Your task to perform on an android device: Search for pizza restaurants on Maps Image 0: 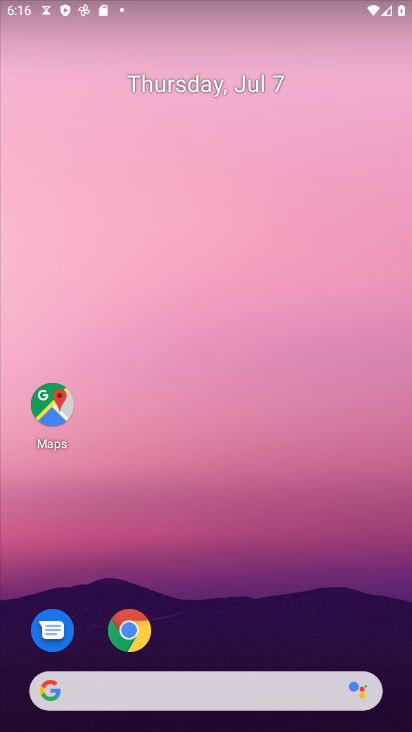
Step 0: drag from (178, 628) to (54, 429)
Your task to perform on an android device: Search for pizza restaurants on Maps Image 1: 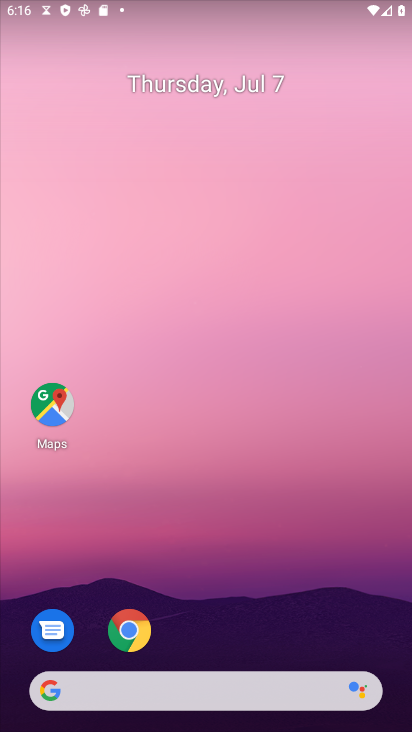
Step 1: click (54, 429)
Your task to perform on an android device: Search for pizza restaurants on Maps Image 2: 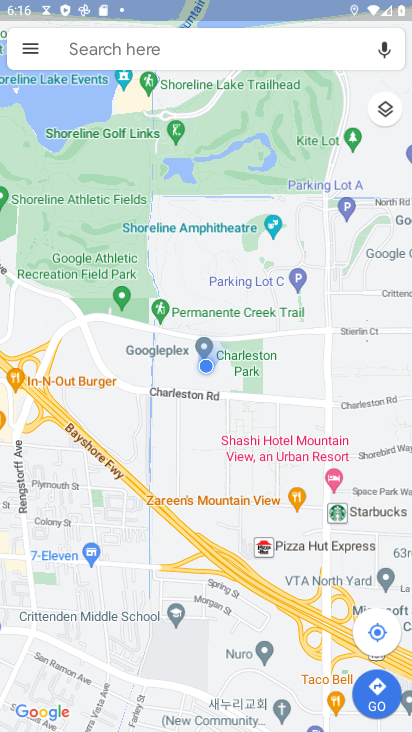
Step 2: click (221, 53)
Your task to perform on an android device: Search for pizza restaurants on Maps Image 3: 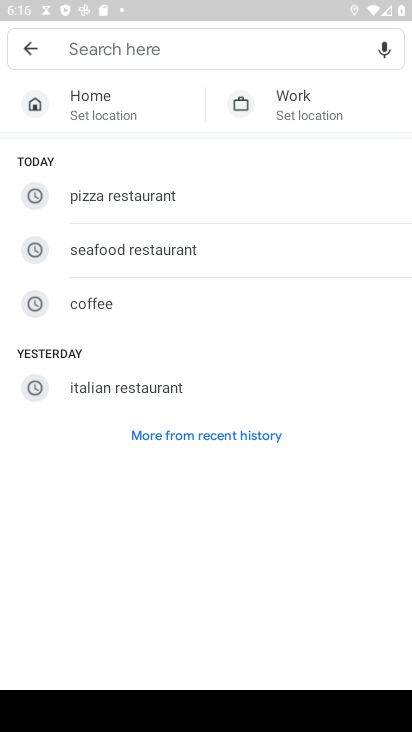
Step 3: type "pizza restaurants"
Your task to perform on an android device: Search for pizza restaurants on Maps Image 4: 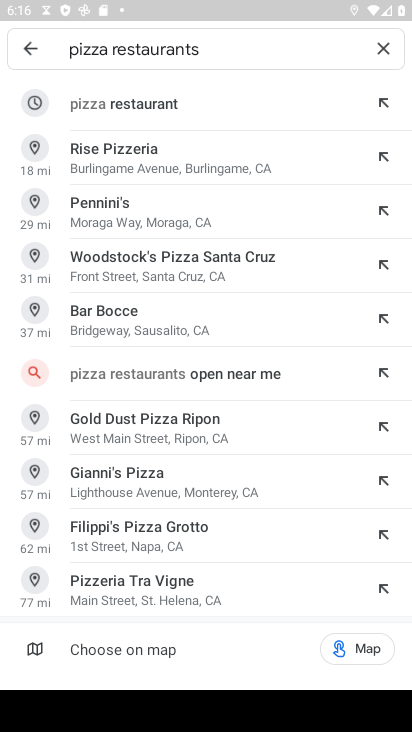
Step 4: click (160, 102)
Your task to perform on an android device: Search for pizza restaurants on Maps Image 5: 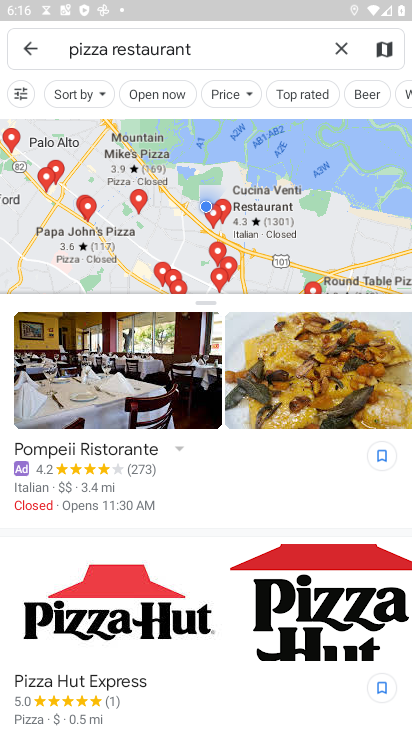
Step 5: task complete